Your task to perform on an android device: change keyboard looks Image 0: 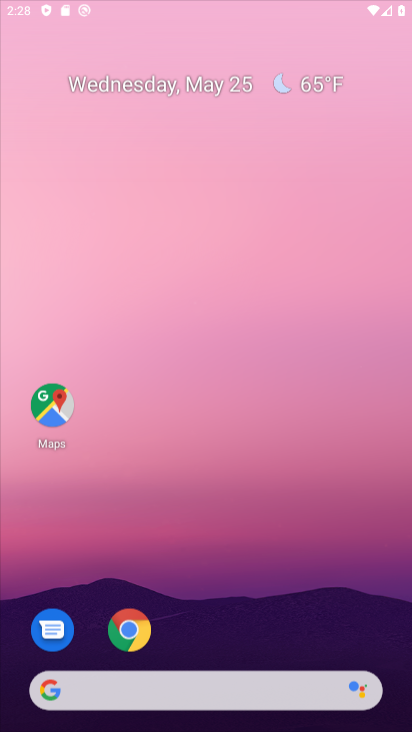
Step 0: press home button
Your task to perform on an android device: change keyboard looks Image 1: 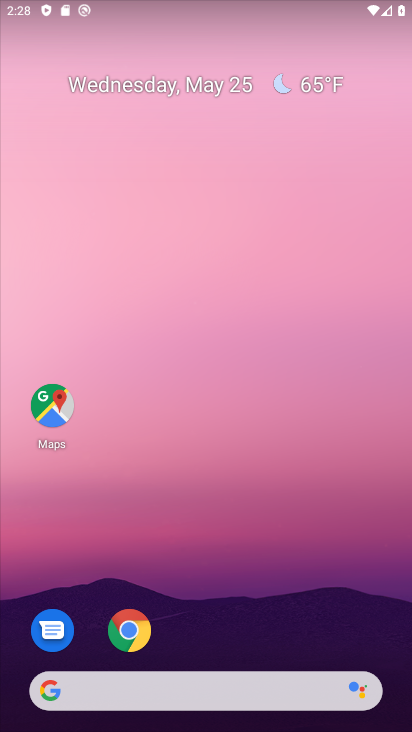
Step 1: drag from (226, 648) to (281, 71)
Your task to perform on an android device: change keyboard looks Image 2: 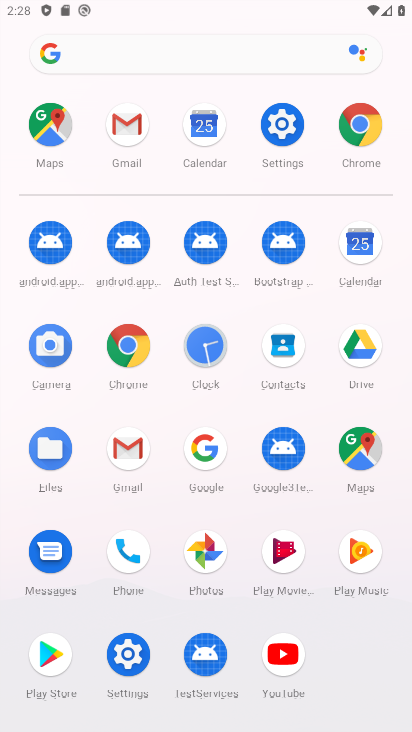
Step 2: click (280, 115)
Your task to perform on an android device: change keyboard looks Image 3: 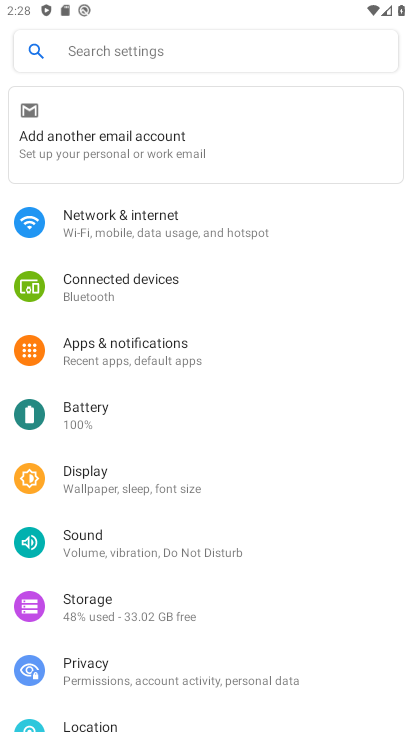
Step 3: drag from (158, 693) to (173, 76)
Your task to perform on an android device: change keyboard looks Image 4: 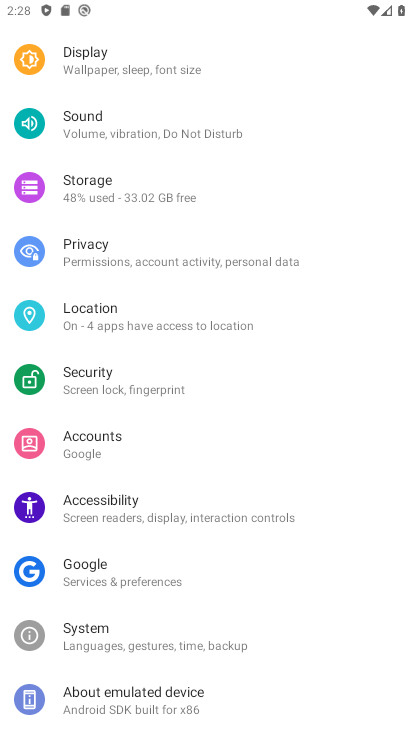
Step 4: click (112, 632)
Your task to perform on an android device: change keyboard looks Image 5: 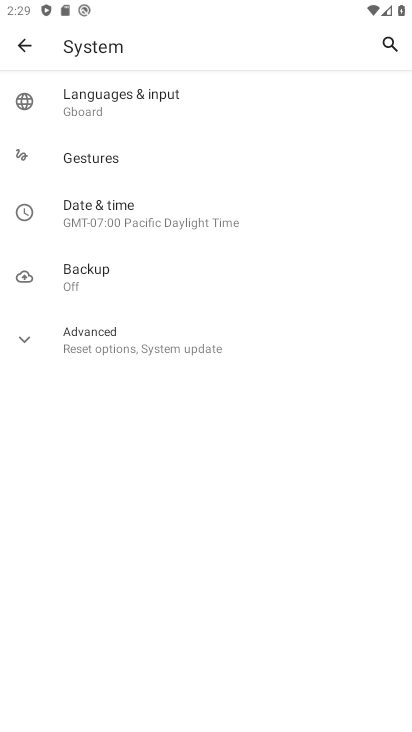
Step 5: click (136, 104)
Your task to perform on an android device: change keyboard looks Image 6: 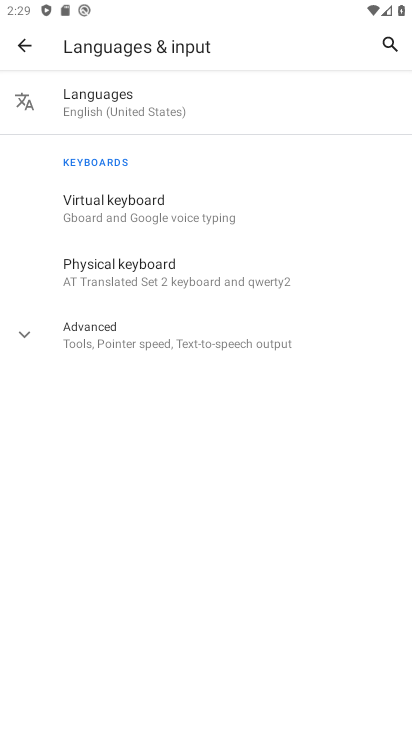
Step 6: click (174, 195)
Your task to perform on an android device: change keyboard looks Image 7: 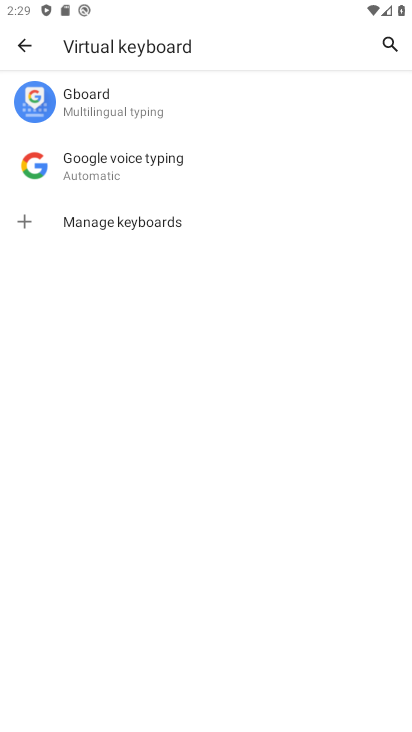
Step 7: click (119, 87)
Your task to perform on an android device: change keyboard looks Image 8: 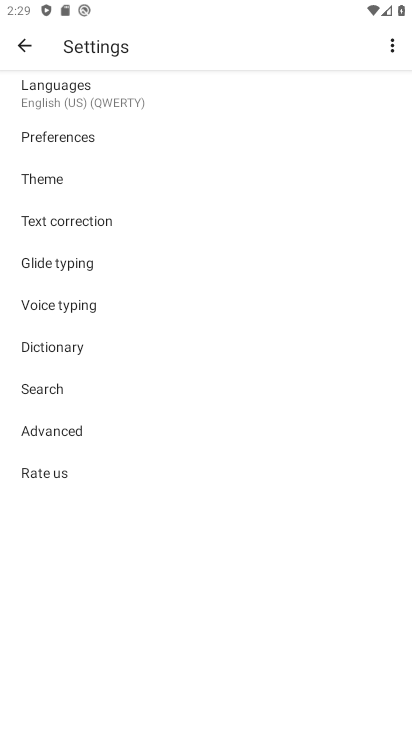
Step 8: click (74, 179)
Your task to perform on an android device: change keyboard looks Image 9: 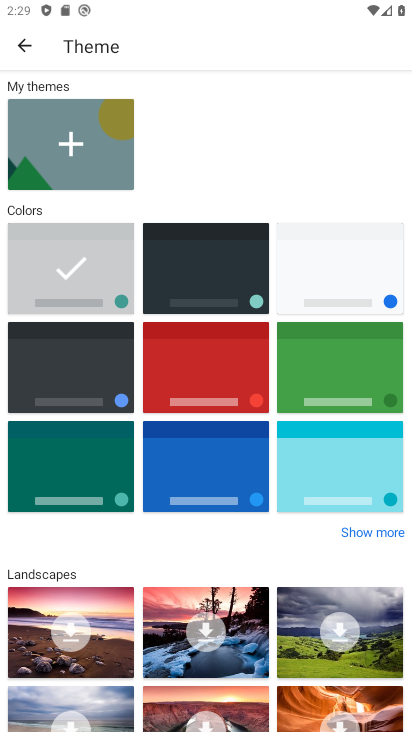
Step 9: click (354, 371)
Your task to perform on an android device: change keyboard looks Image 10: 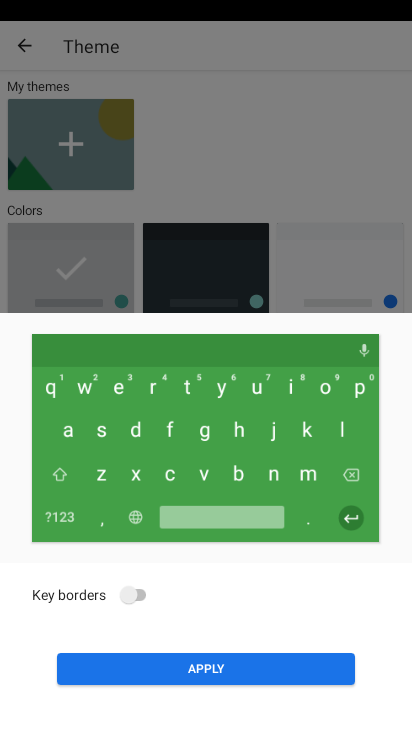
Step 10: click (205, 665)
Your task to perform on an android device: change keyboard looks Image 11: 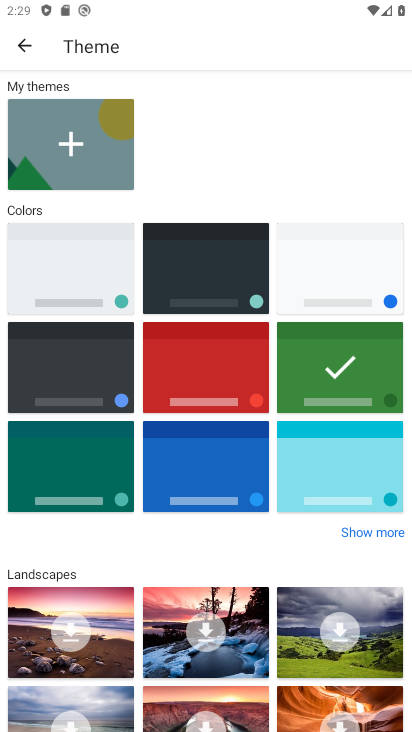
Step 11: task complete